Your task to perform on an android device: Go to settings Image 0: 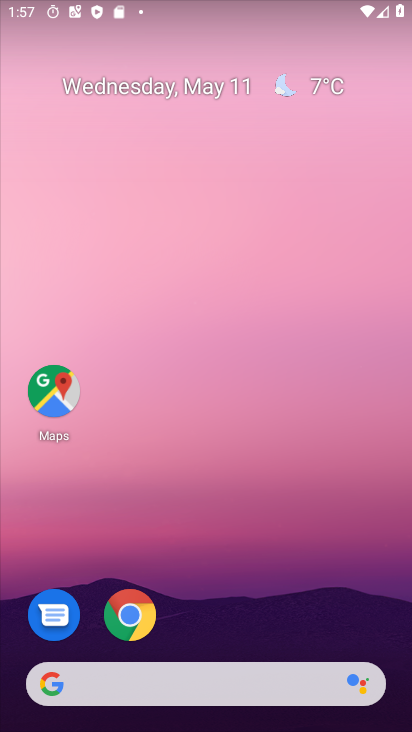
Step 0: drag from (237, 678) to (289, 83)
Your task to perform on an android device: Go to settings Image 1: 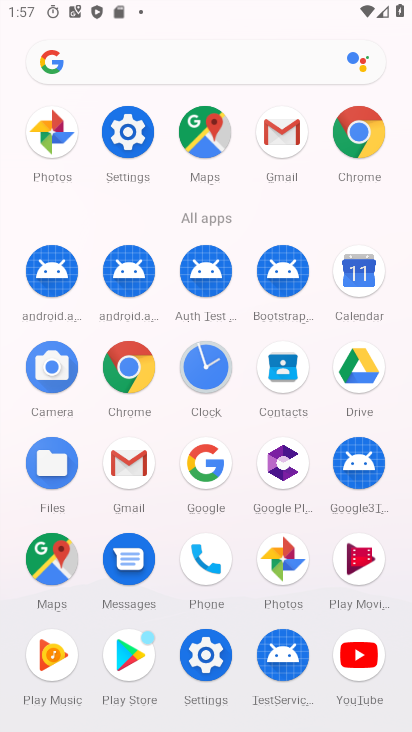
Step 1: click (139, 130)
Your task to perform on an android device: Go to settings Image 2: 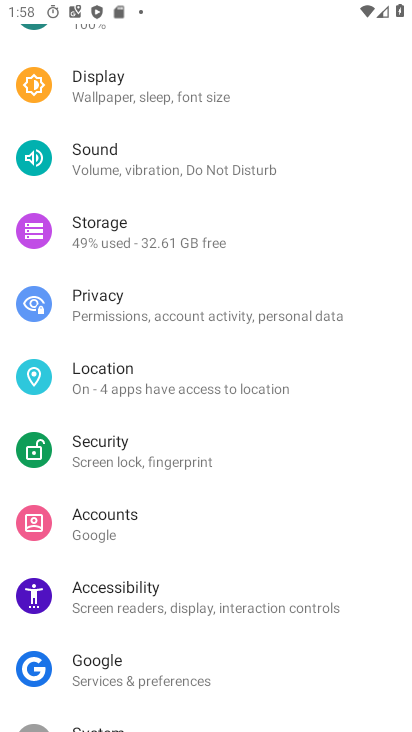
Step 2: task complete